Your task to perform on an android device: turn off smart reply in the gmail app Image 0: 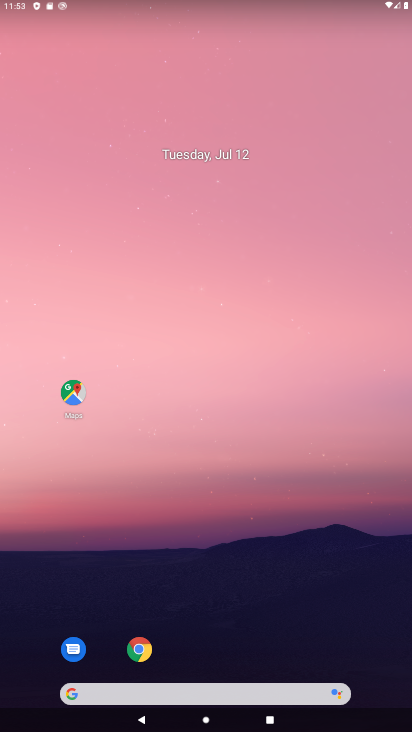
Step 0: drag from (247, 610) to (241, 130)
Your task to perform on an android device: turn off smart reply in the gmail app Image 1: 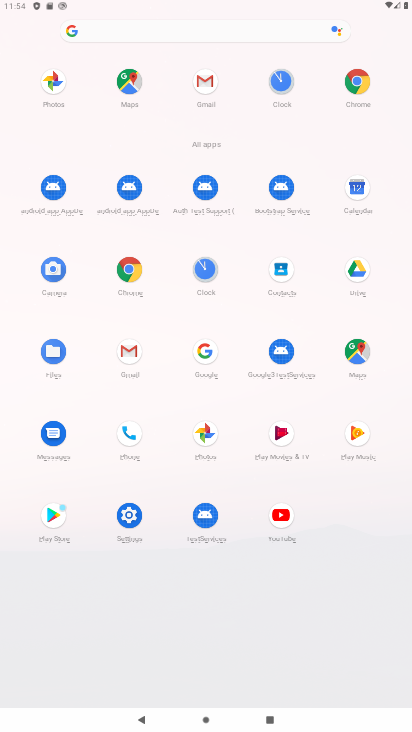
Step 1: click (125, 351)
Your task to perform on an android device: turn off smart reply in the gmail app Image 2: 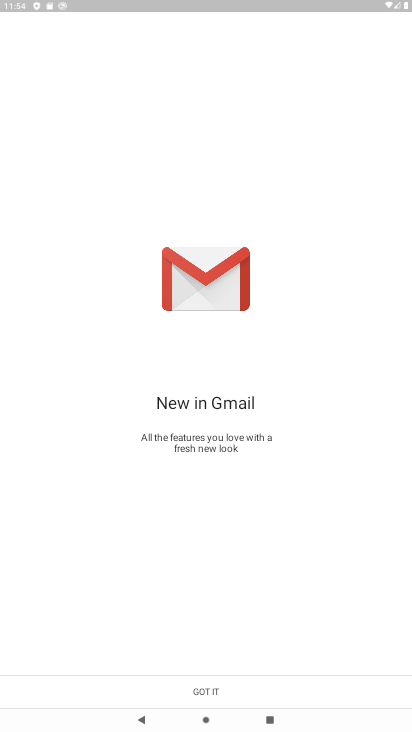
Step 2: click (223, 691)
Your task to perform on an android device: turn off smart reply in the gmail app Image 3: 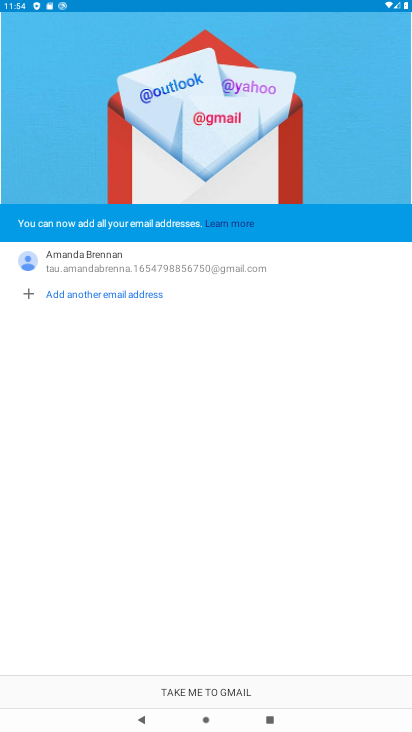
Step 3: click (204, 693)
Your task to perform on an android device: turn off smart reply in the gmail app Image 4: 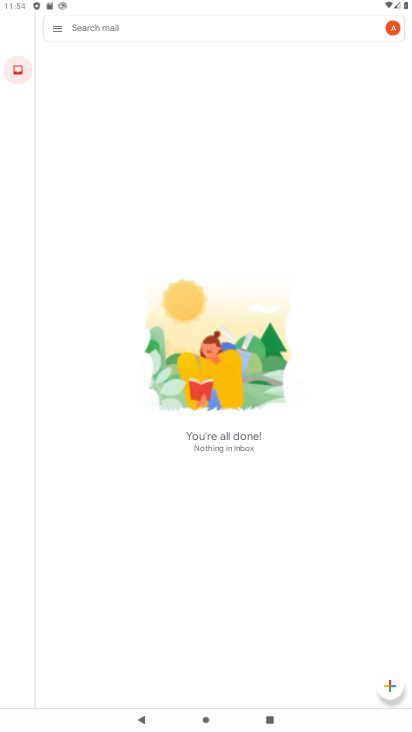
Step 4: click (64, 27)
Your task to perform on an android device: turn off smart reply in the gmail app Image 5: 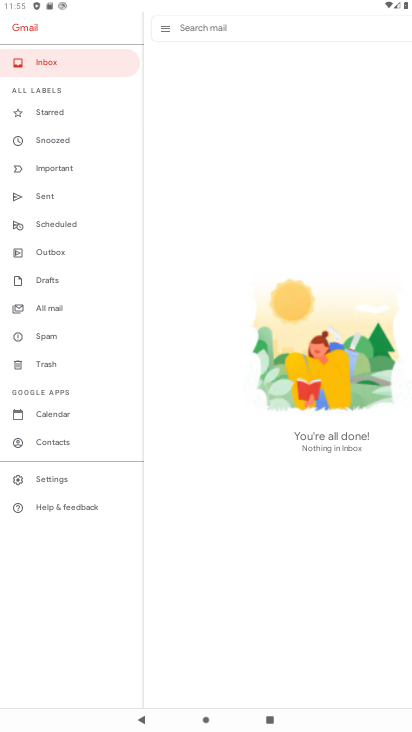
Step 5: click (49, 476)
Your task to perform on an android device: turn off smart reply in the gmail app Image 6: 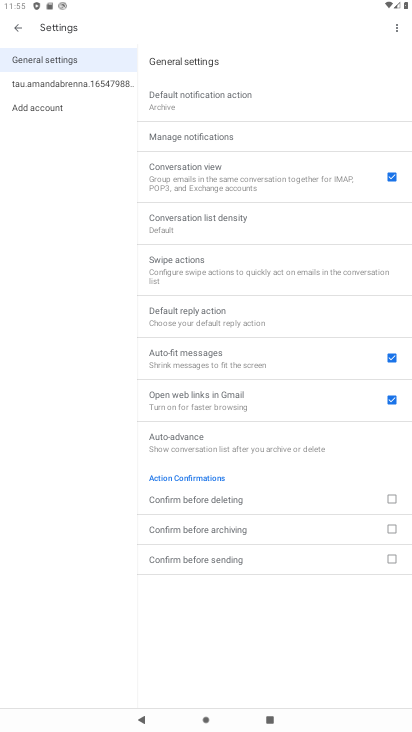
Step 6: click (65, 83)
Your task to perform on an android device: turn off smart reply in the gmail app Image 7: 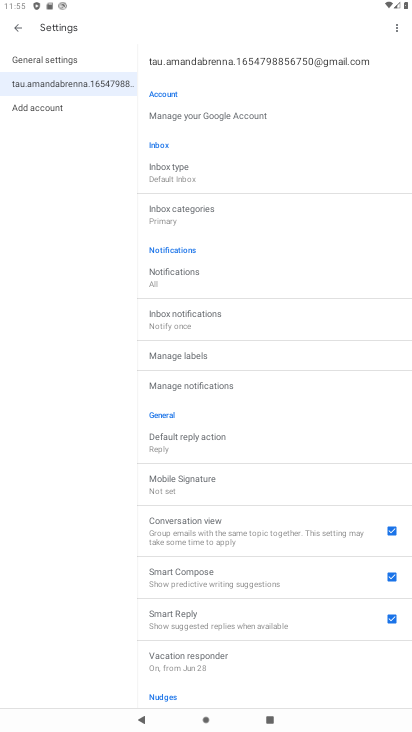
Step 7: drag from (289, 492) to (276, 413)
Your task to perform on an android device: turn off smart reply in the gmail app Image 8: 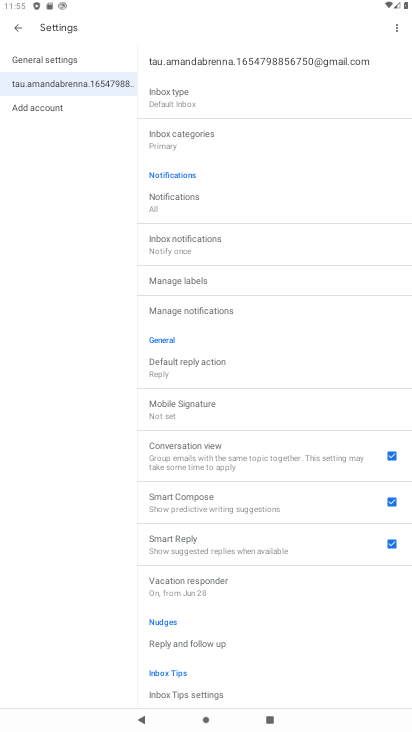
Step 8: click (391, 544)
Your task to perform on an android device: turn off smart reply in the gmail app Image 9: 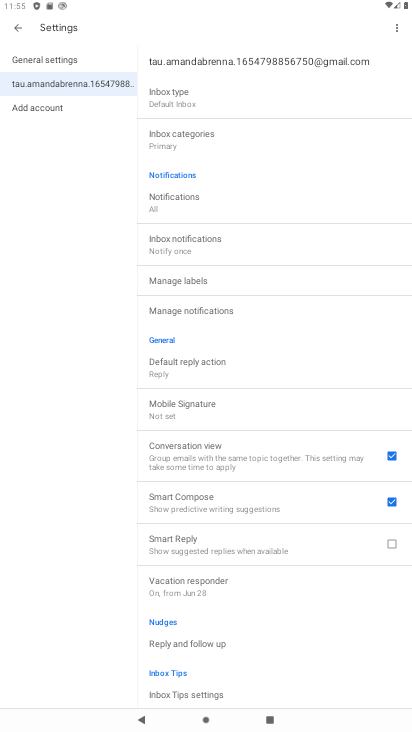
Step 9: task complete